Your task to perform on an android device: Open Amazon Image 0: 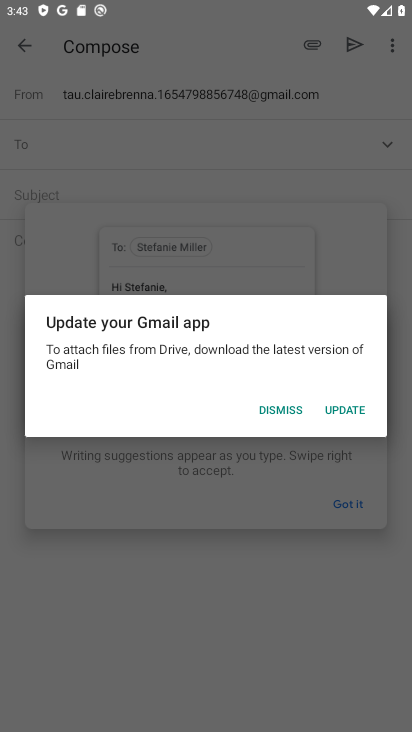
Step 0: press home button
Your task to perform on an android device: Open Amazon Image 1: 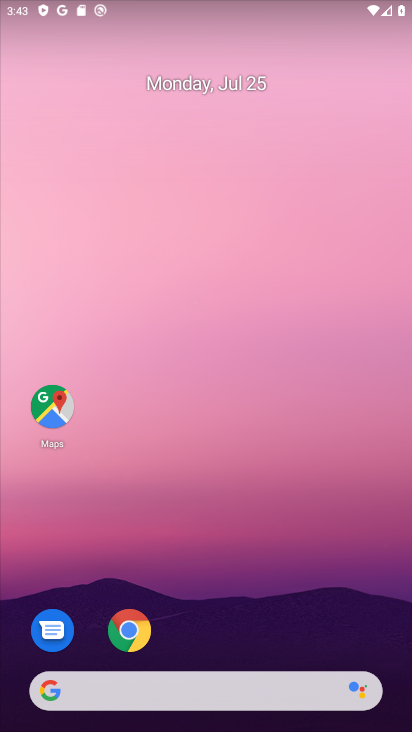
Step 1: click (128, 632)
Your task to perform on an android device: Open Amazon Image 2: 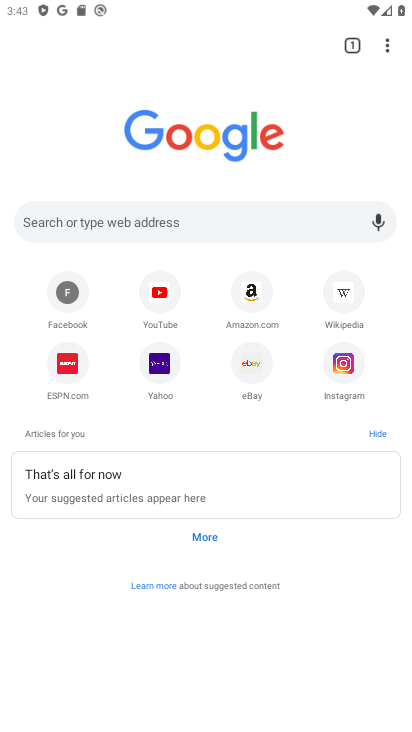
Step 2: click (251, 297)
Your task to perform on an android device: Open Amazon Image 3: 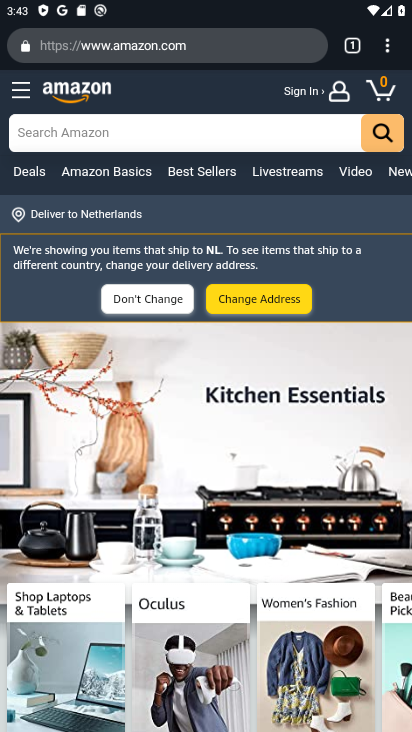
Step 3: task complete